Your task to perform on an android device: Open location settings Image 0: 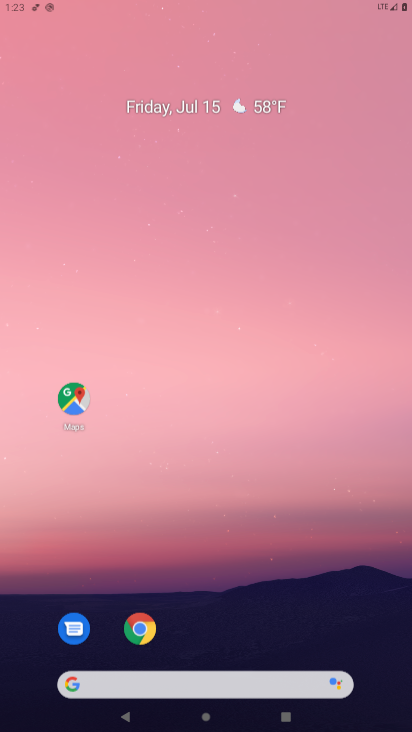
Step 0: press home button
Your task to perform on an android device: Open location settings Image 1: 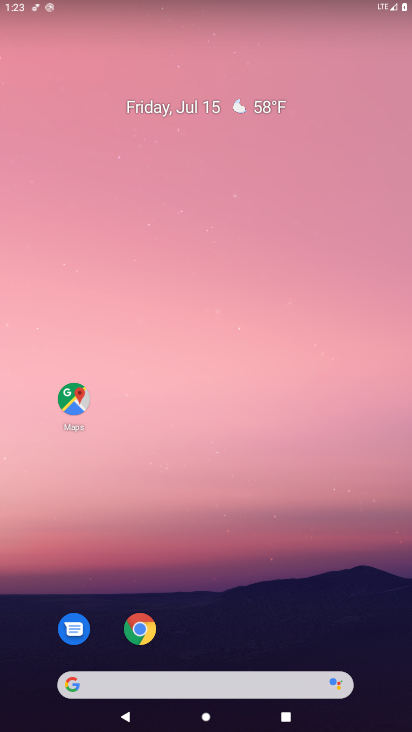
Step 1: drag from (257, 641) to (262, 60)
Your task to perform on an android device: Open location settings Image 2: 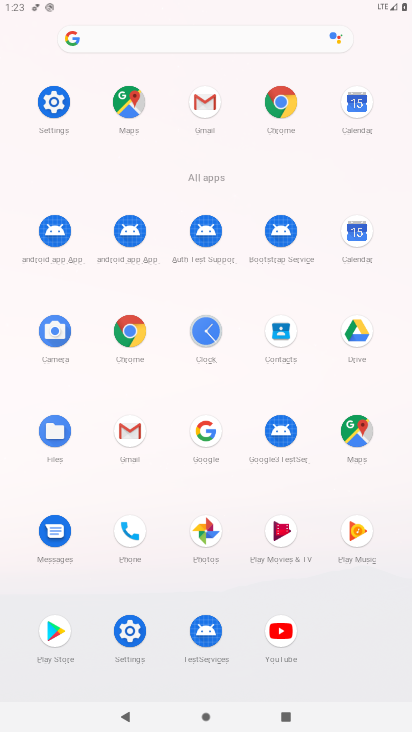
Step 2: click (78, 113)
Your task to perform on an android device: Open location settings Image 3: 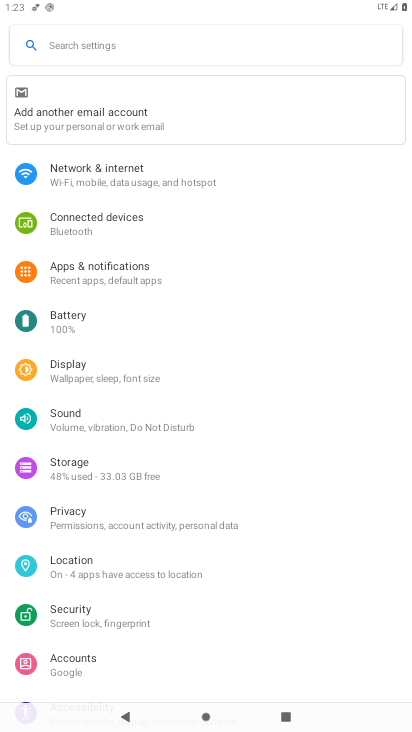
Step 3: click (60, 569)
Your task to perform on an android device: Open location settings Image 4: 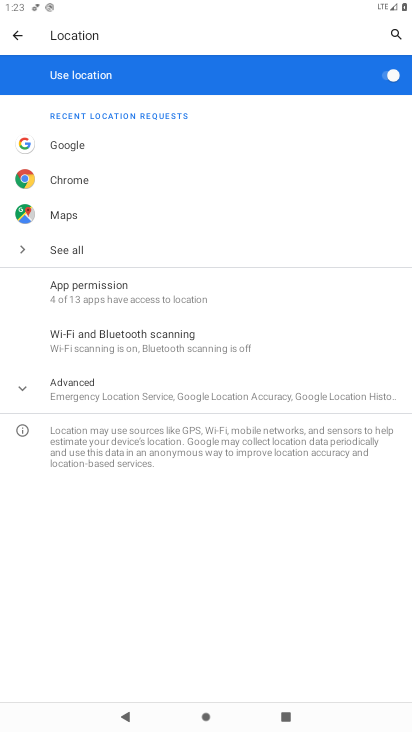
Step 4: task complete